Your task to perform on an android device: Open settings on Google Maps Image 0: 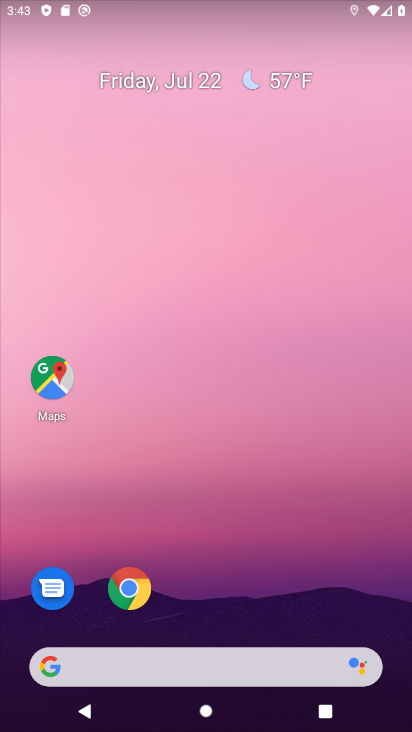
Step 0: drag from (185, 656) to (136, 57)
Your task to perform on an android device: Open settings on Google Maps Image 1: 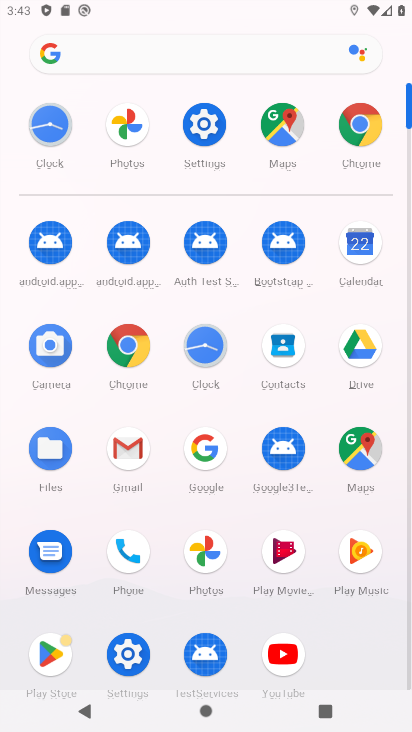
Step 1: click (370, 441)
Your task to perform on an android device: Open settings on Google Maps Image 2: 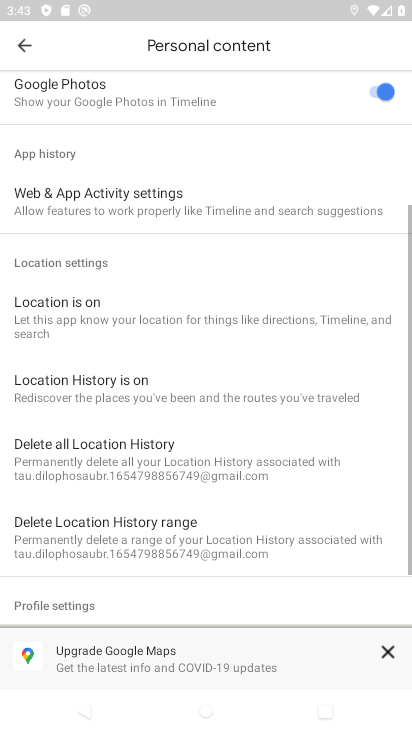
Step 2: click (22, 34)
Your task to perform on an android device: Open settings on Google Maps Image 3: 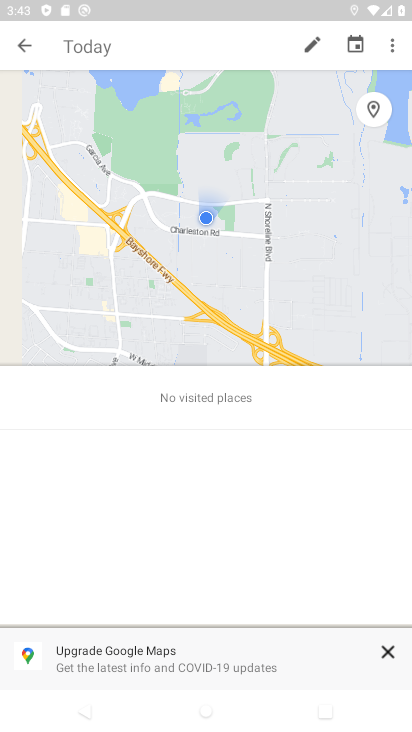
Step 3: click (32, 44)
Your task to perform on an android device: Open settings on Google Maps Image 4: 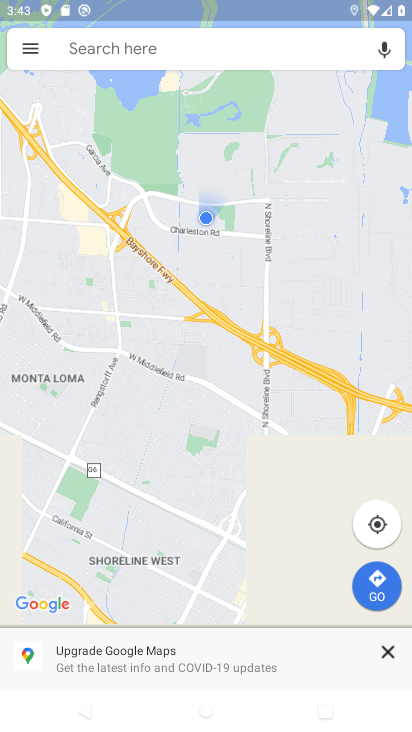
Step 4: click (34, 39)
Your task to perform on an android device: Open settings on Google Maps Image 5: 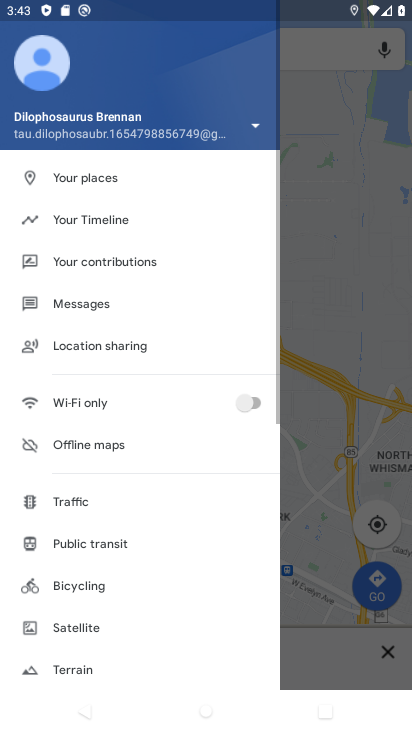
Step 5: drag from (123, 594) to (113, 100)
Your task to perform on an android device: Open settings on Google Maps Image 6: 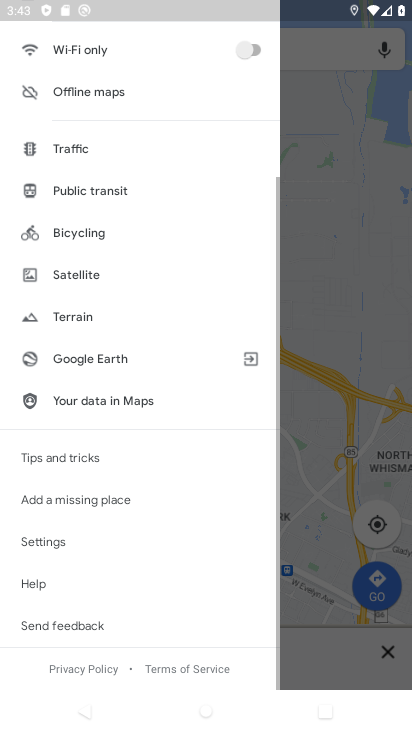
Step 6: click (59, 541)
Your task to perform on an android device: Open settings on Google Maps Image 7: 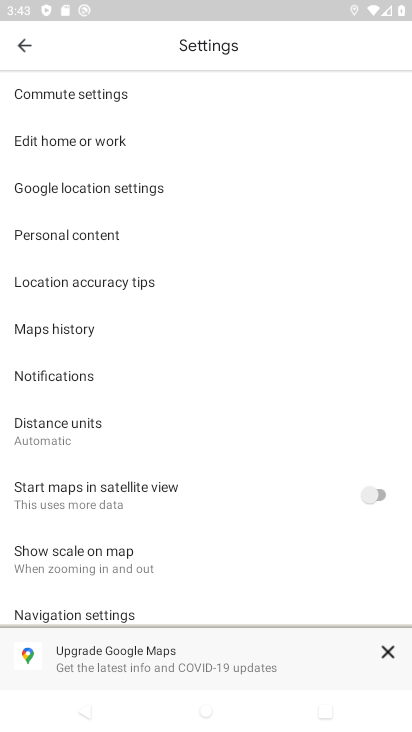
Step 7: task complete